Your task to perform on an android device: Go to internet settings Image 0: 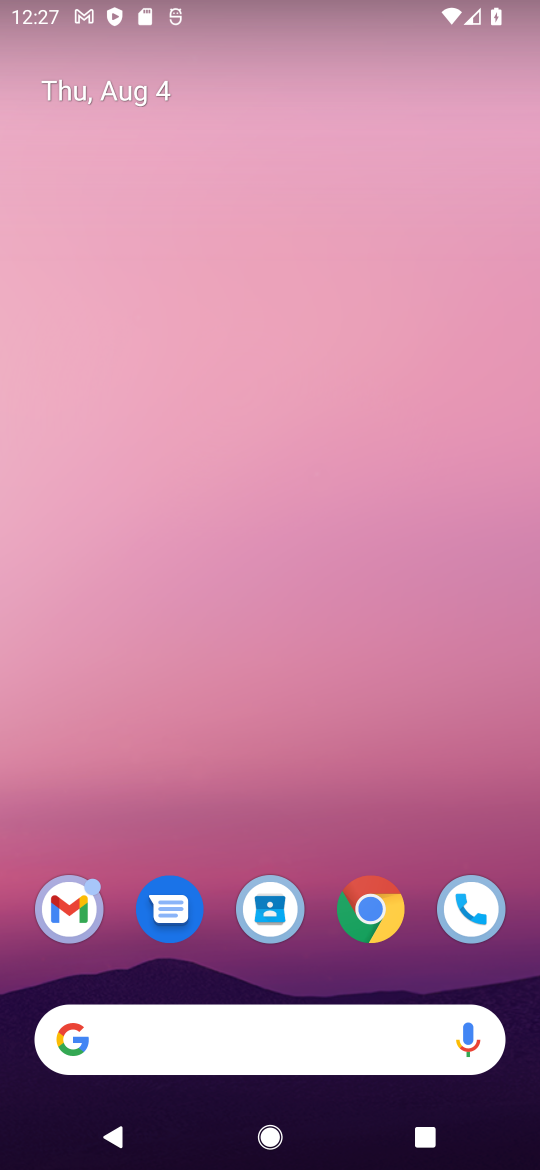
Step 0: drag from (163, 985) to (468, 47)
Your task to perform on an android device: Go to internet settings Image 1: 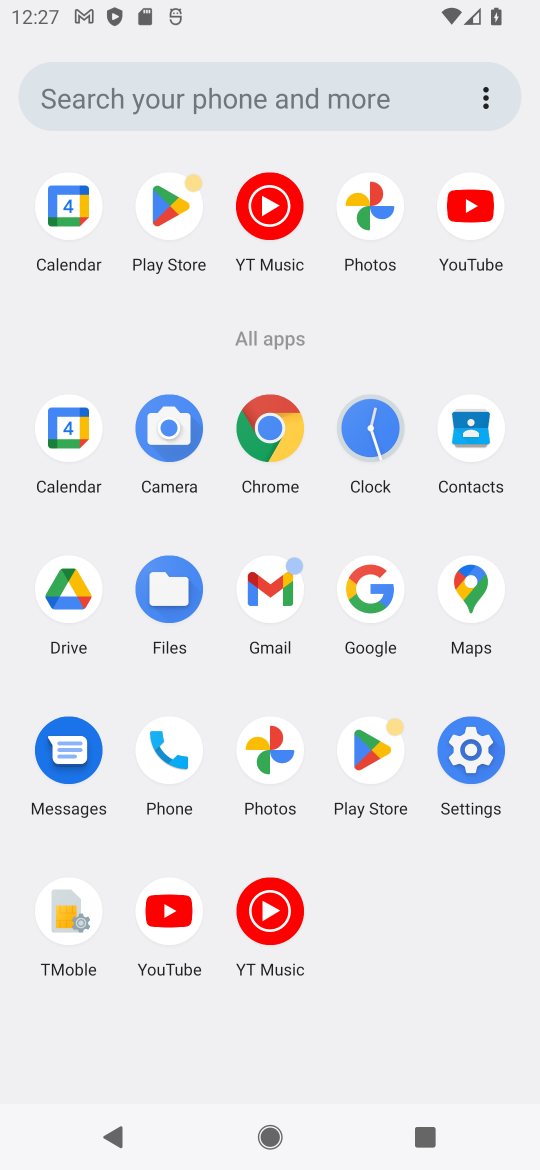
Step 1: click (471, 774)
Your task to perform on an android device: Go to internet settings Image 2: 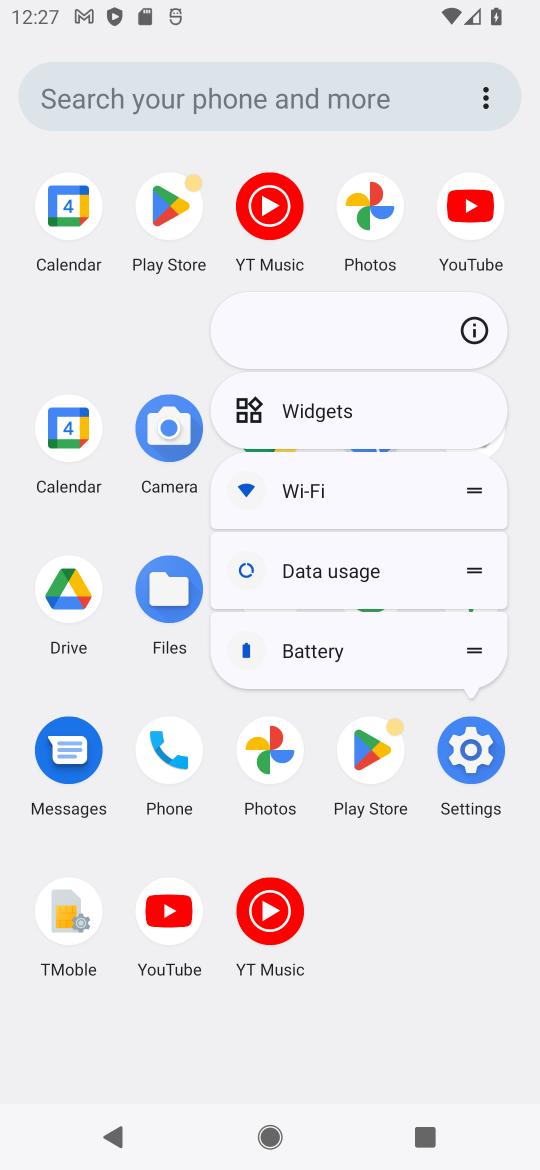
Step 2: click (491, 756)
Your task to perform on an android device: Go to internet settings Image 3: 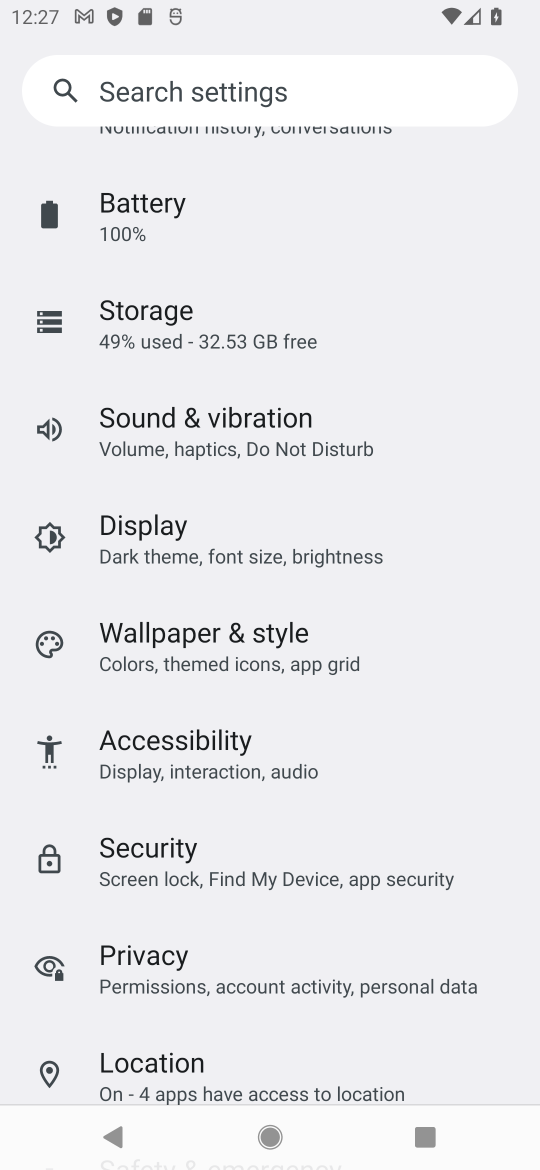
Step 3: drag from (331, 214) to (357, 1004)
Your task to perform on an android device: Go to internet settings Image 4: 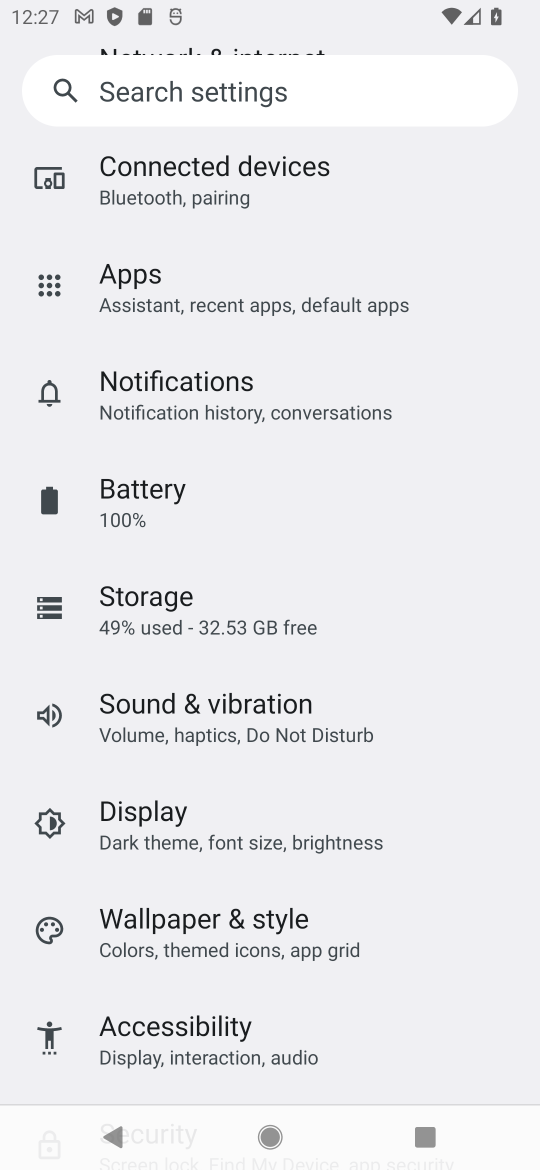
Step 4: drag from (405, 209) to (413, 993)
Your task to perform on an android device: Go to internet settings Image 5: 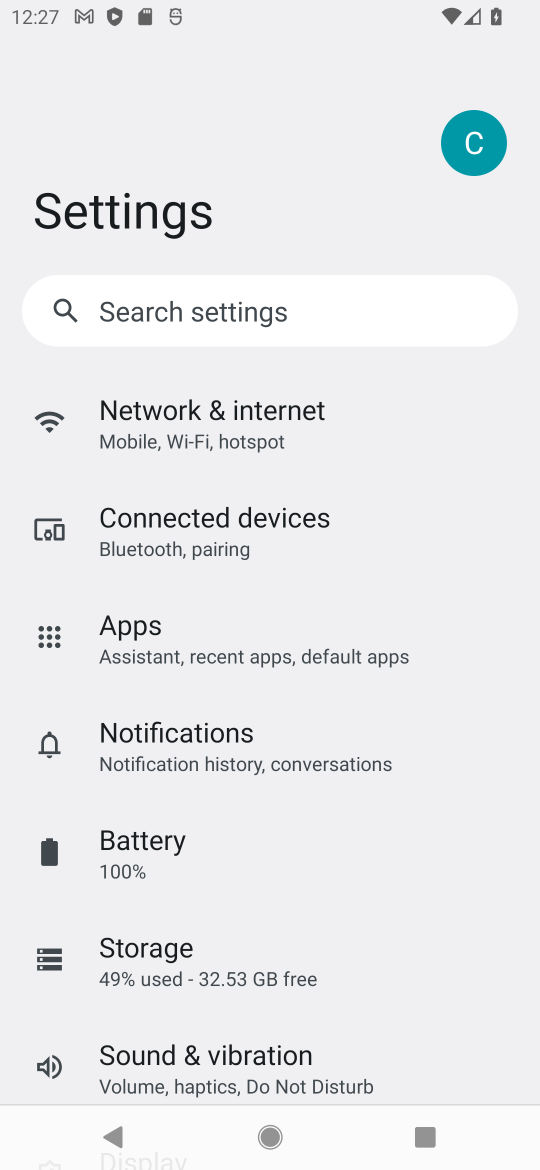
Step 5: click (295, 438)
Your task to perform on an android device: Go to internet settings Image 6: 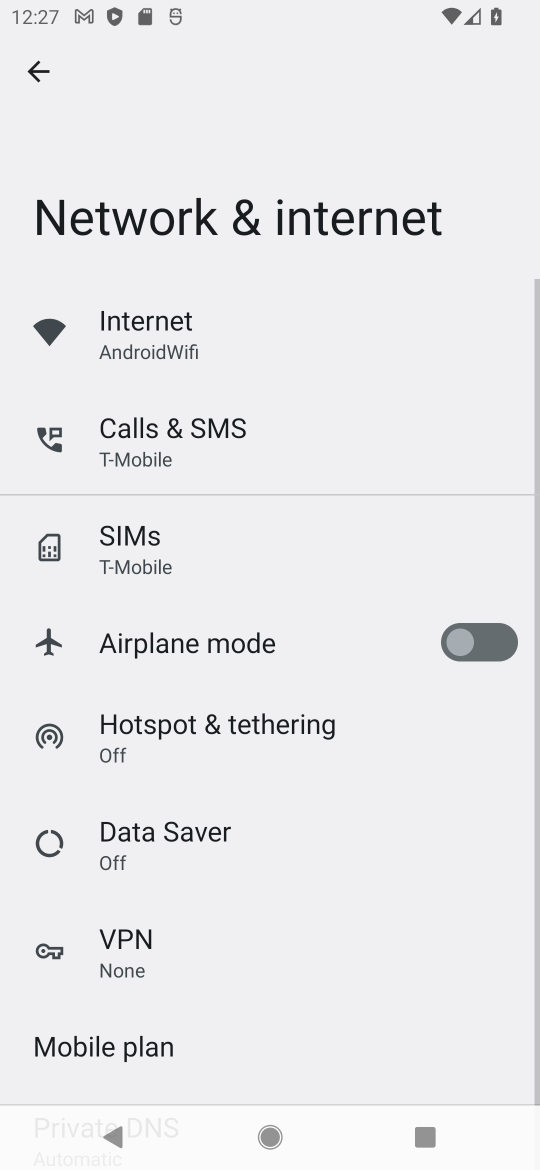
Step 6: task complete